Your task to perform on an android device: Check the settings for the Spotify app Image 0: 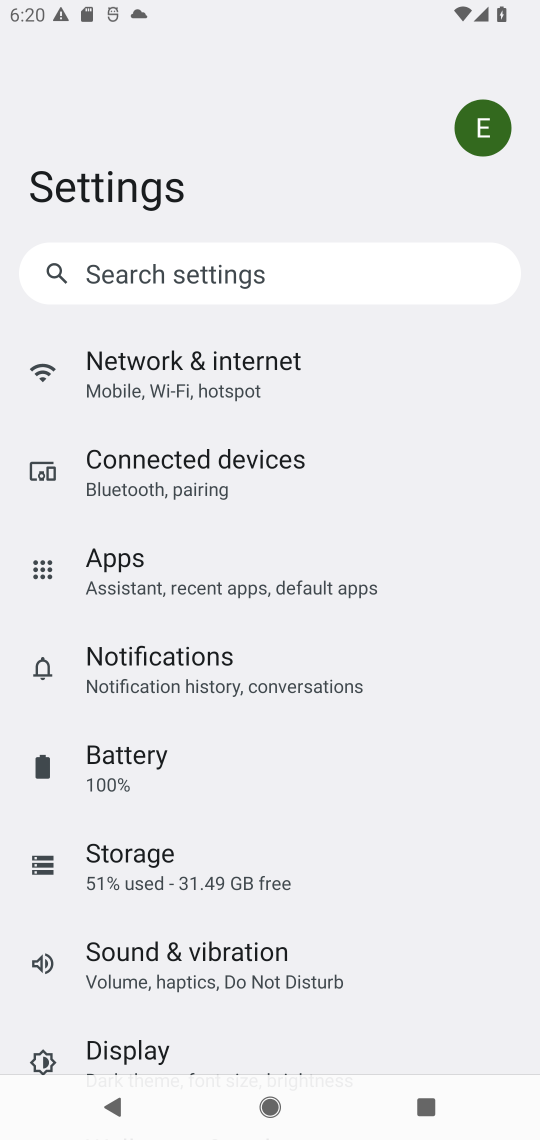
Step 0: press home button
Your task to perform on an android device: Check the settings for the Spotify app Image 1: 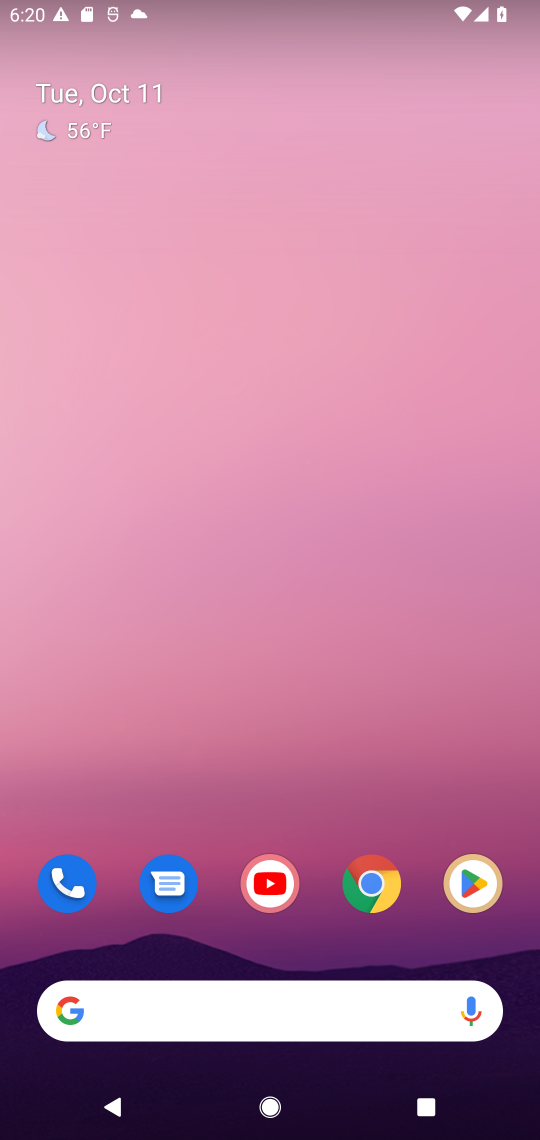
Step 1: task complete